Your task to perform on an android device: Open Android settings Image 0: 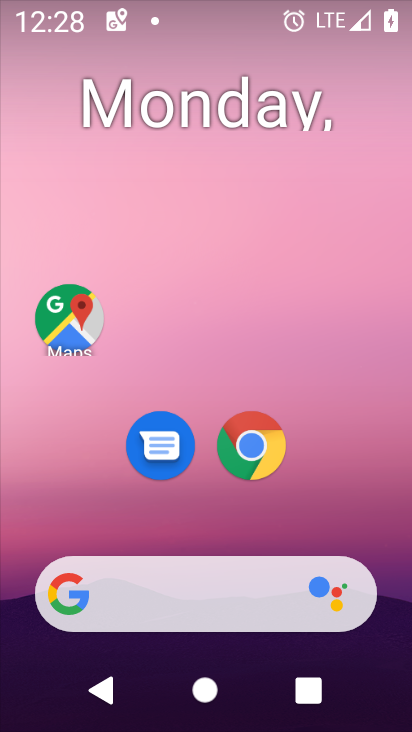
Step 0: drag from (203, 520) to (202, 95)
Your task to perform on an android device: Open Android settings Image 1: 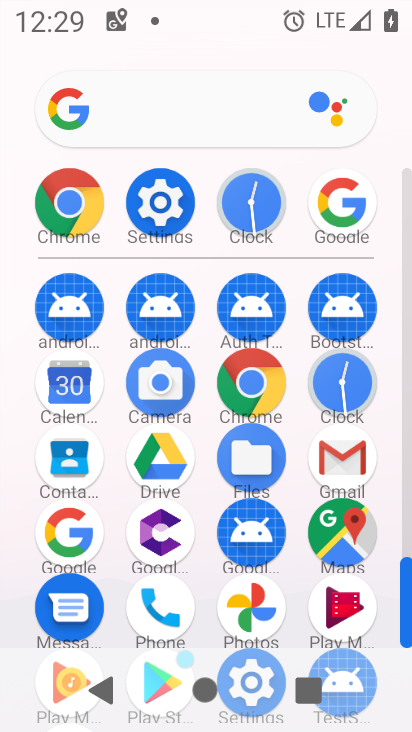
Step 1: click (140, 188)
Your task to perform on an android device: Open Android settings Image 2: 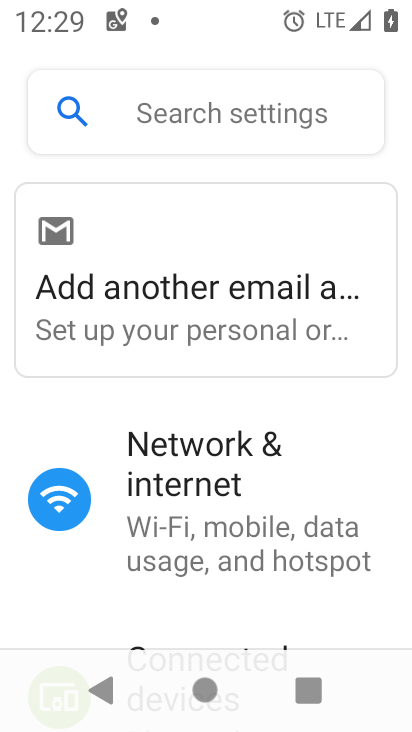
Step 2: drag from (229, 527) to (261, 285)
Your task to perform on an android device: Open Android settings Image 3: 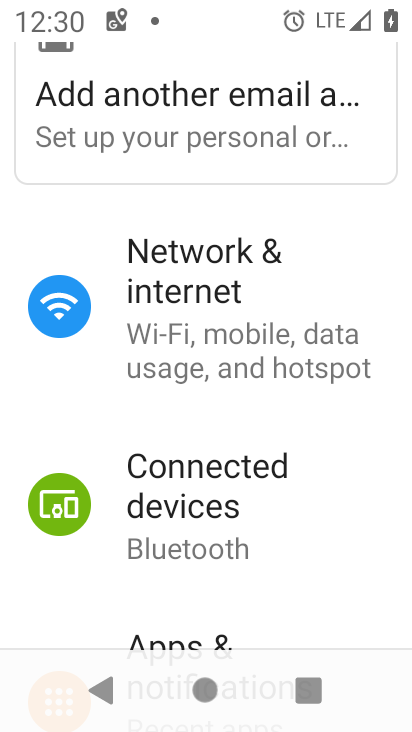
Step 3: drag from (201, 507) to (122, 10)
Your task to perform on an android device: Open Android settings Image 4: 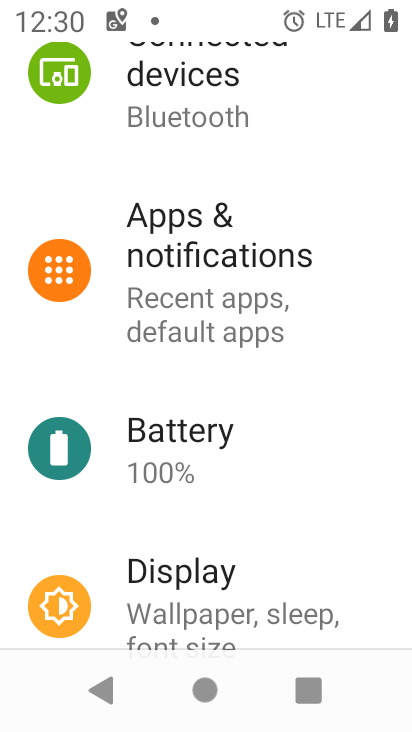
Step 4: drag from (194, 592) to (319, 62)
Your task to perform on an android device: Open Android settings Image 5: 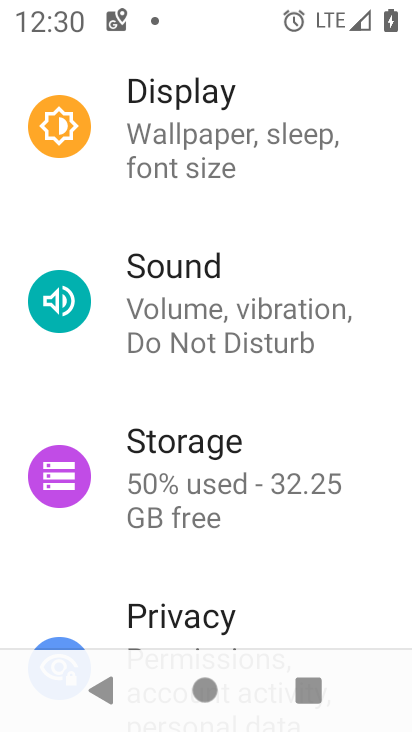
Step 5: drag from (166, 593) to (223, 43)
Your task to perform on an android device: Open Android settings Image 6: 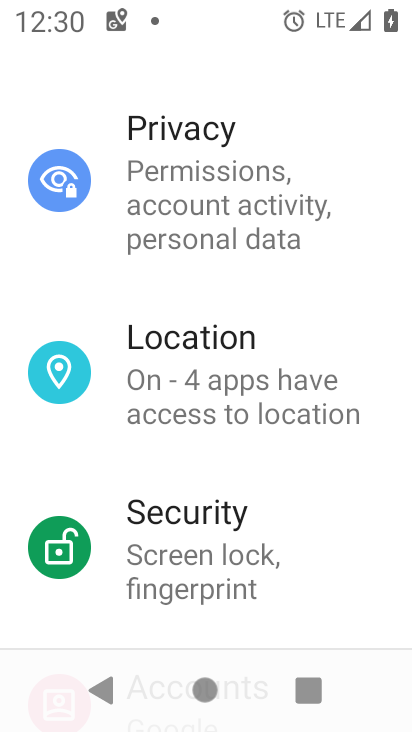
Step 6: drag from (176, 557) to (286, 74)
Your task to perform on an android device: Open Android settings Image 7: 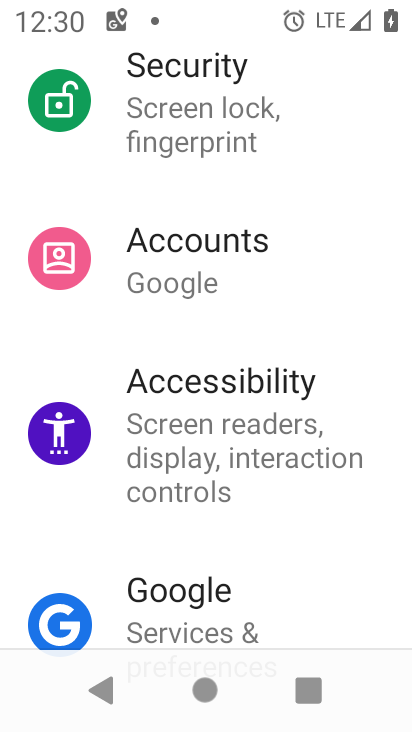
Step 7: drag from (179, 566) to (278, 38)
Your task to perform on an android device: Open Android settings Image 8: 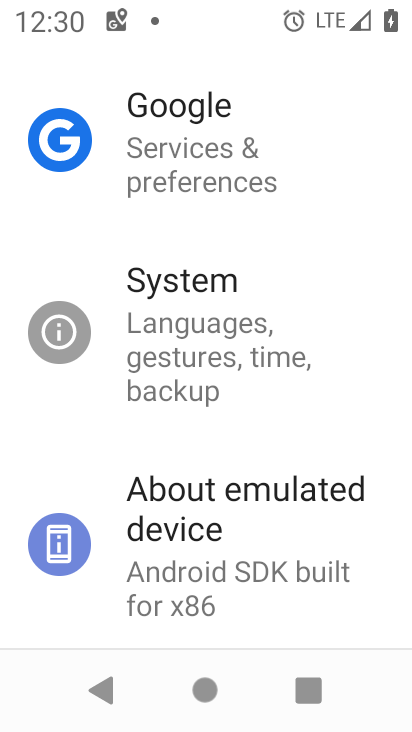
Step 8: click (195, 518)
Your task to perform on an android device: Open Android settings Image 9: 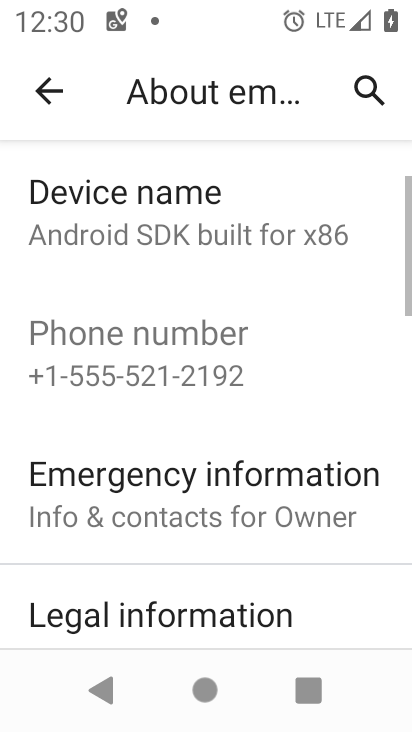
Step 9: drag from (172, 506) to (255, 83)
Your task to perform on an android device: Open Android settings Image 10: 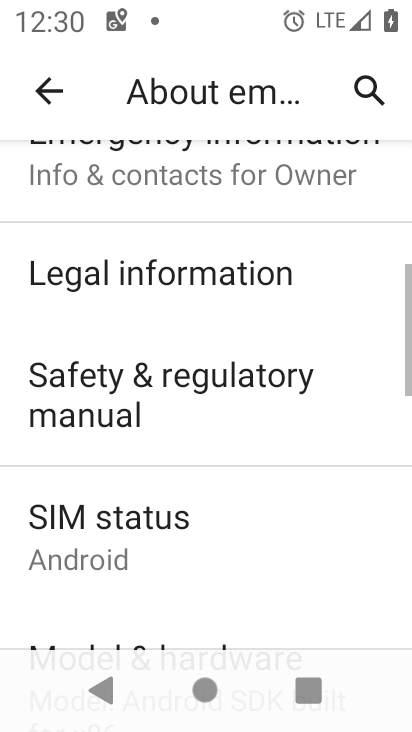
Step 10: drag from (218, 597) to (286, 143)
Your task to perform on an android device: Open Android settings Image 11: 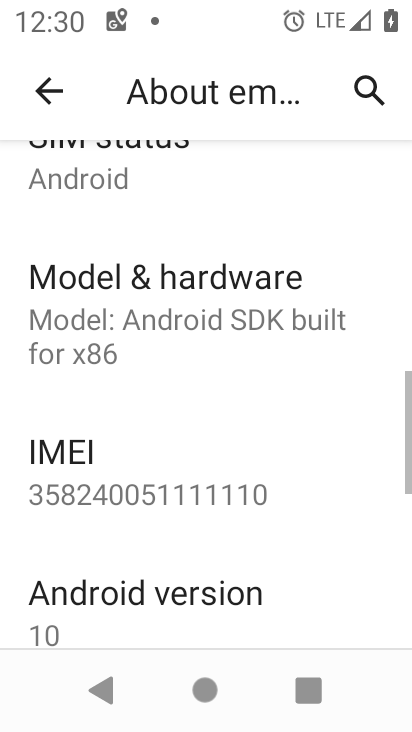
Step 11: click (200, 587)
Your task to perform on an android device: Open Android settings Image 12: 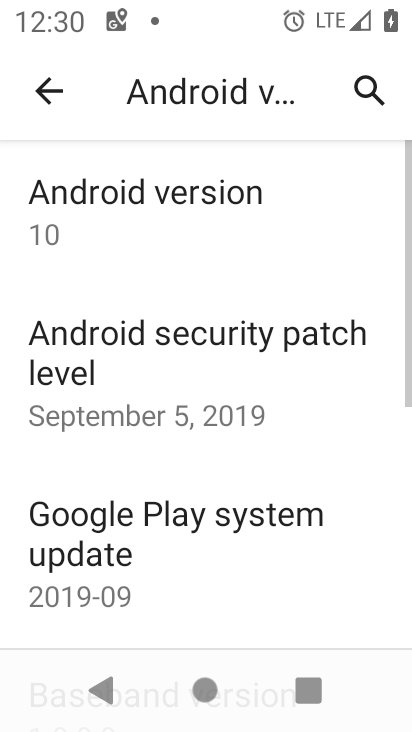
Step 12: task complete